Your task to perform on an android device: change notification settings in the gmail app Image 0: 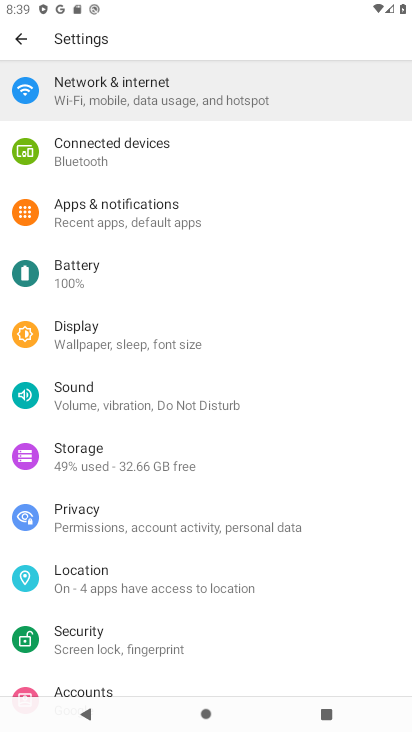
Step 0: press home button
Your task to perform on an android device: change notification settings in the gmail app Image 1: 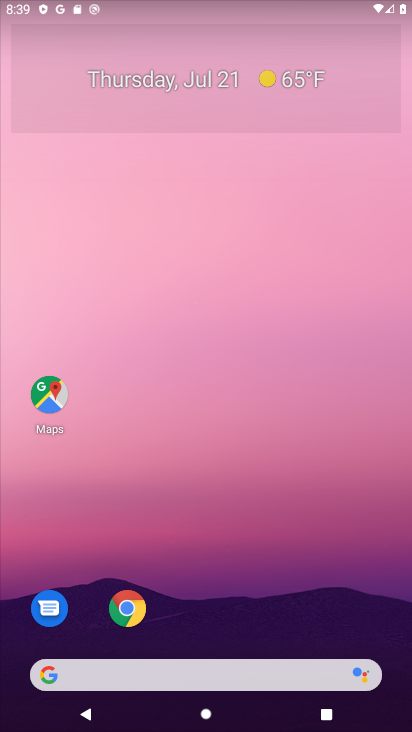
Step 1: drag from (272, 579) to (218, 352)
Your task to perform on an android device: change notification settings in the gmail app Image 2: 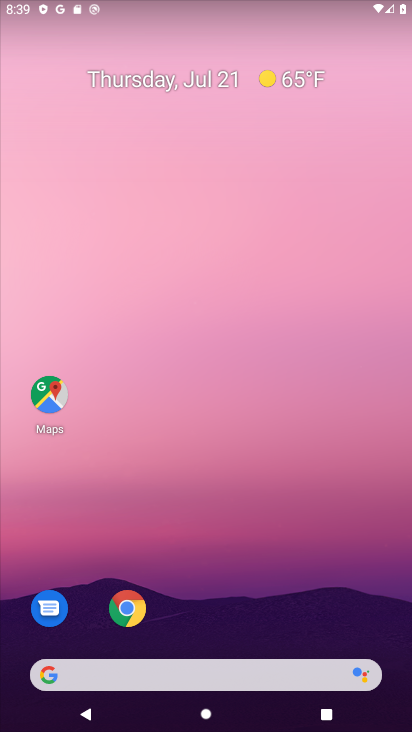
Step 2: drag from (239, 610) to (156, 320)
Your task to perform on an android device: change notification settings in the gmail app Image 3: 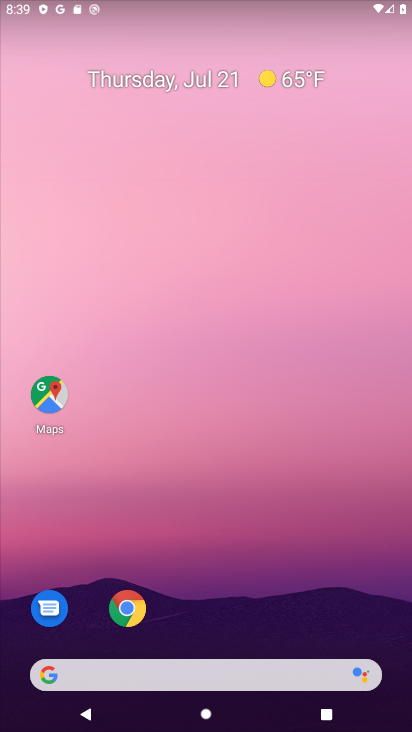
Step 3: drag from (235, 576) to (55, 254)
Your task to perform on an android device: change notification settings in the gmail app Image 4: 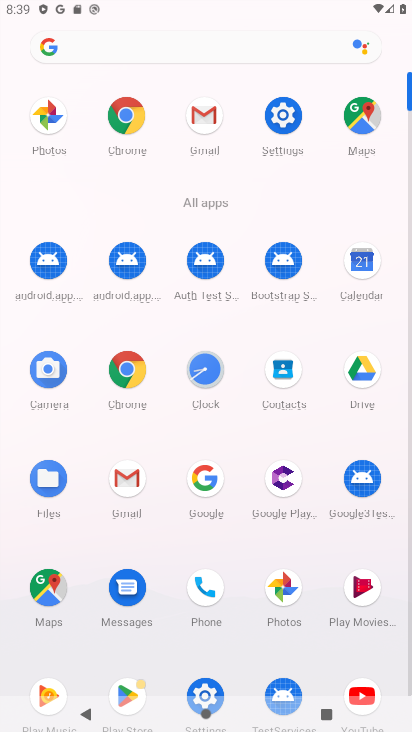
Step 4: click (125, 483)
Your task to perform on an android device: change notification settings in the gmail app Image 5: 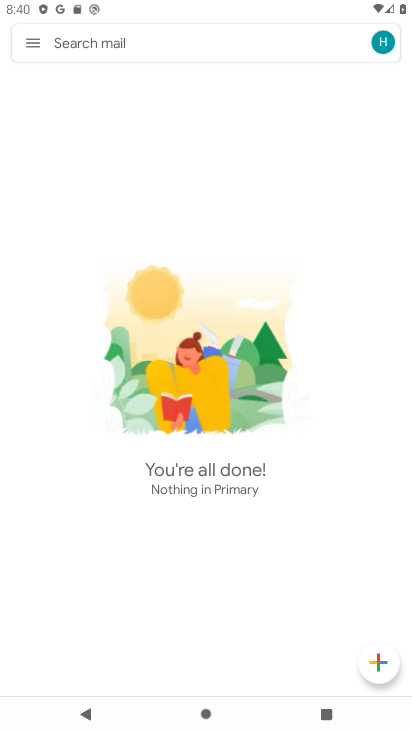
Step 5: click (39, 49)
Your task to perform on an android device: change notification settings in the gmail app Image 6: 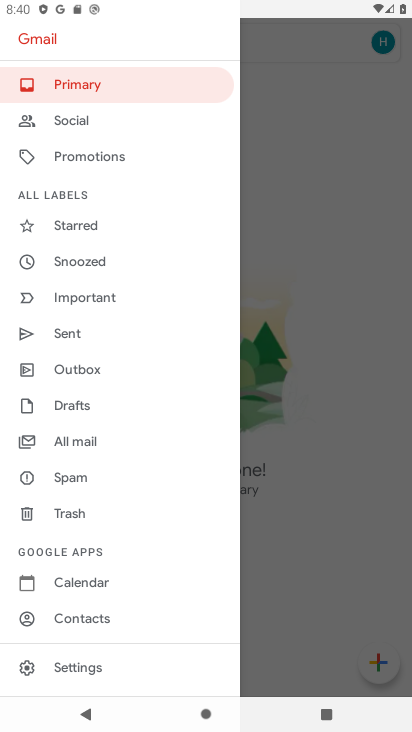
Step 6: click (90, 670)
Your task to perform on an android device: change notification settings in the gmail app Image 7: 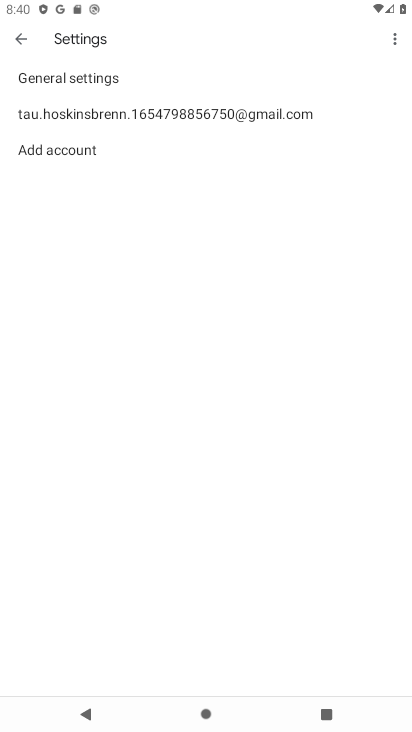
Step 7: click (93, 81)
Your task to perform on an android device: change notification settings in the gmail app Image 8: 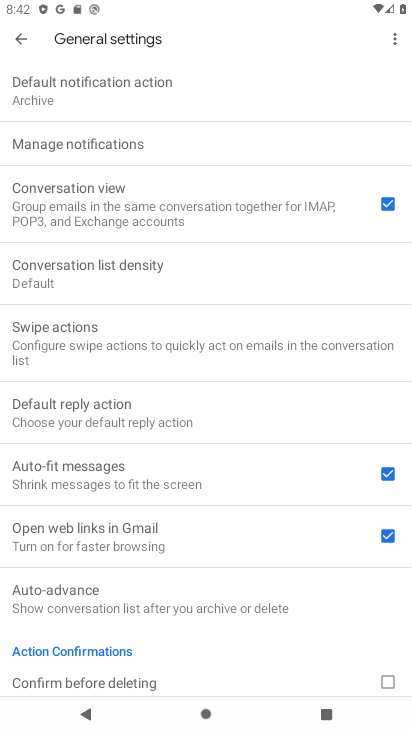
Step 8: task complete